Your task to perform on an android device: toggle wifi Image 0: 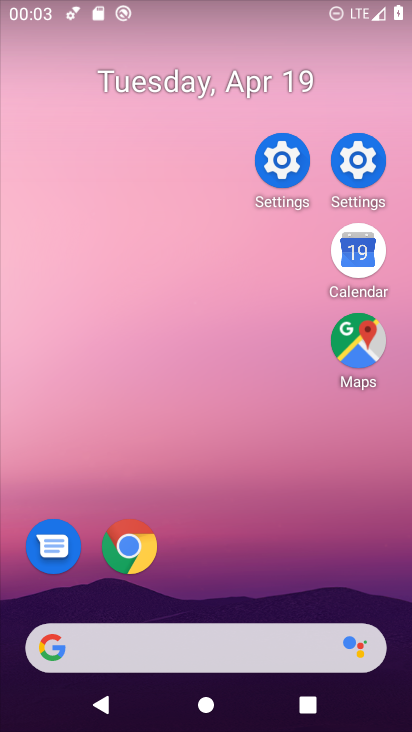
Step 0: drag from (292, 241) to (199, 0)
Your task to perform on an android device: toggle wifi Image 1: 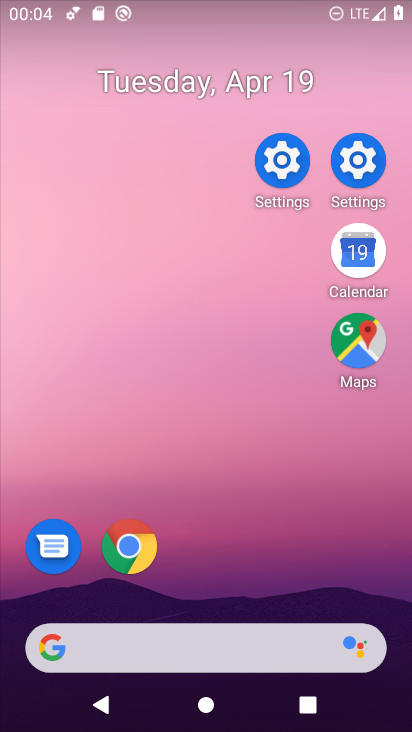
Step 1: drag from (309, 698) to (256, 209)
Your task to perform on an android device: toggle wifi Image 2: 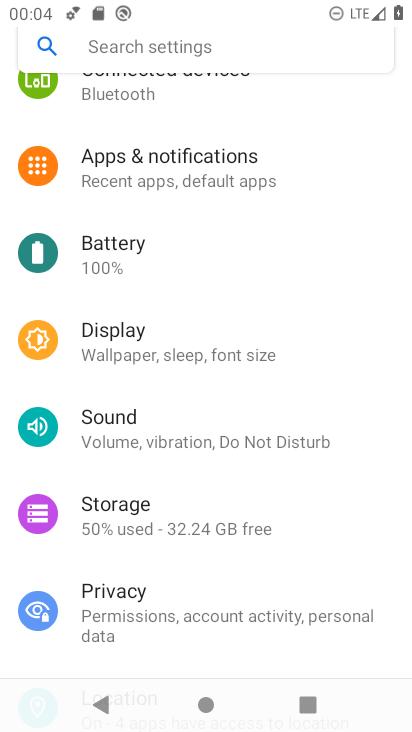
Step 2: drag from (168, 205) to (198, 589)
Your task to perform on an android device: toggle wifi Image 3: 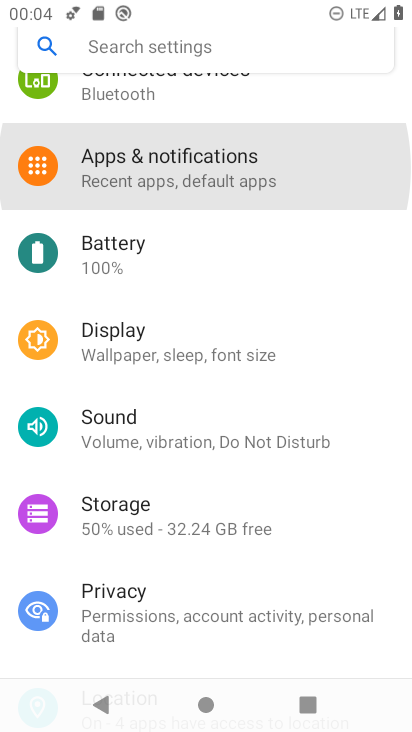
Step 3: drag from (217, 322) to (128, 536)
Your task to perform on an android device: toggle wifi Image 4: 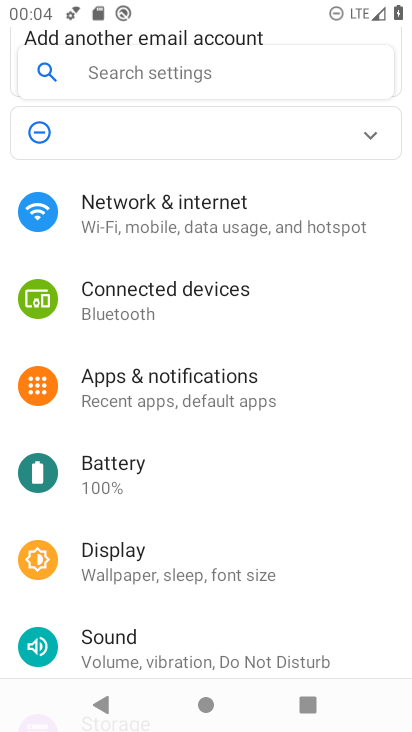
Step 4: click (177, 215)
Your task to perform on an android device: toggle wifi Image 5: 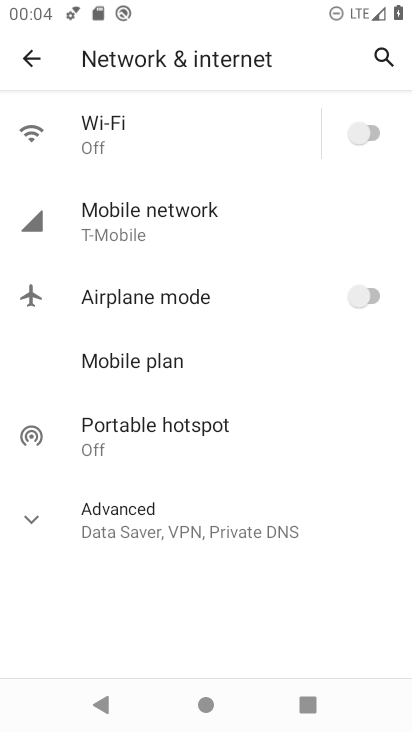
Step 5: click (346, 124)
Your task to perform on an android device: toggle wifi Image 6: 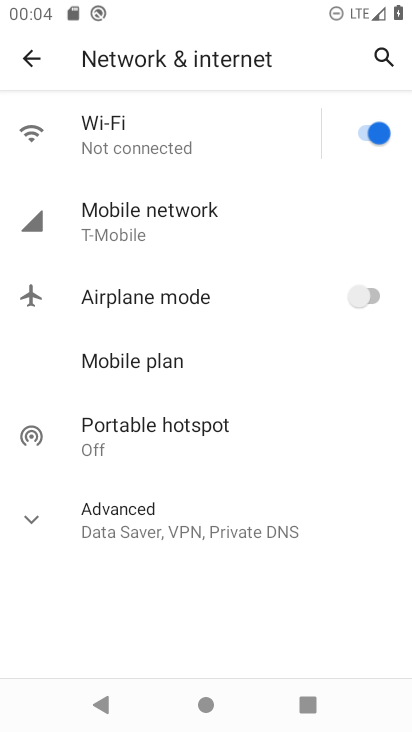
Step 6: task complete